Your task to perform on an android device: Set the phone to "Do not disturb". Image 0: 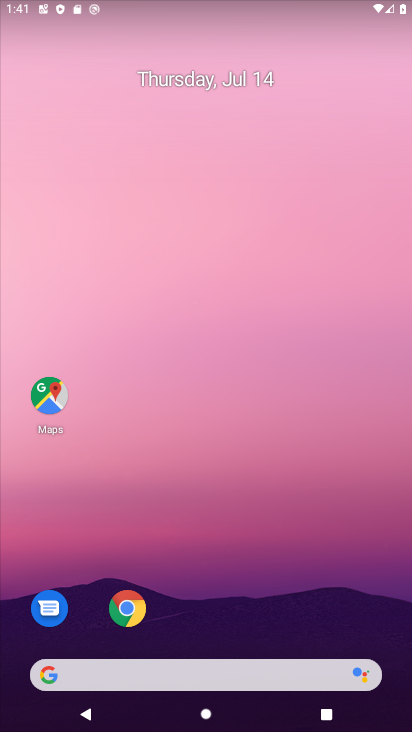
Step 0: drag from (378, 614) to (332, 55)
Your task to perform on an android device: Set the phone to "Do not disturb". Image 1: 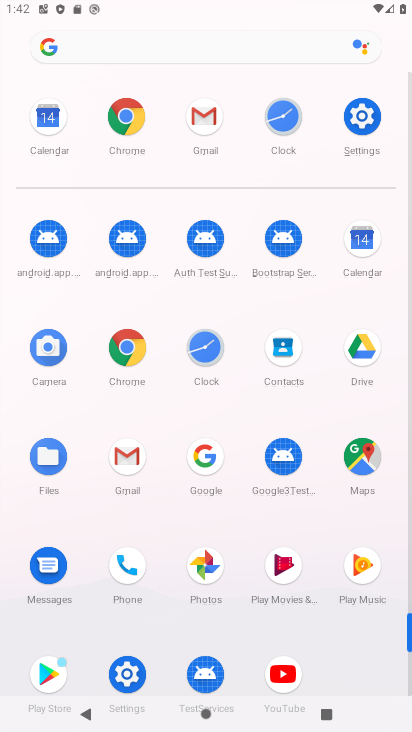
Step 1: click (128, 675)
Your task to perform on an android device: Set the phone to "Do not disturb". Image 2: 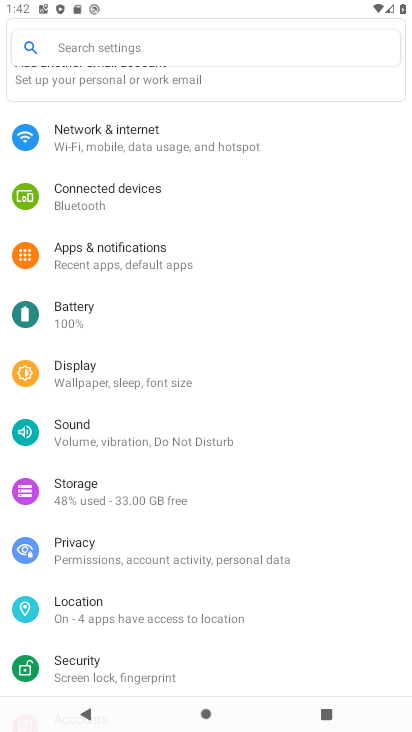
Step 2: click (76, 429)
Your task to perform on an android device: Set the phone to "Do not disturb". Image 3: 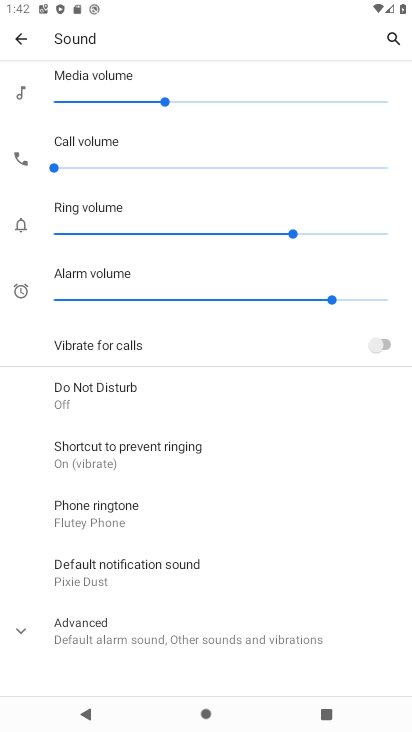
Step 3: click (75, 392)
Your task to perform on an android device: Set the phone to "Do not disturb". Image 4: 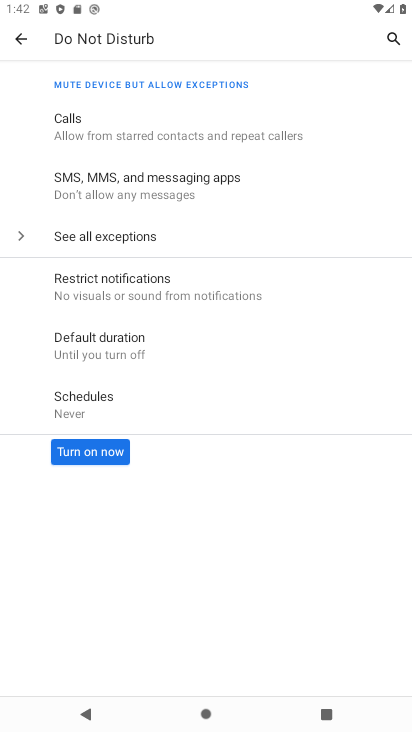
Step 4: click (87, 453)
Your task to perform on an android device: Set the phone to "Do not disturb". Image 5: 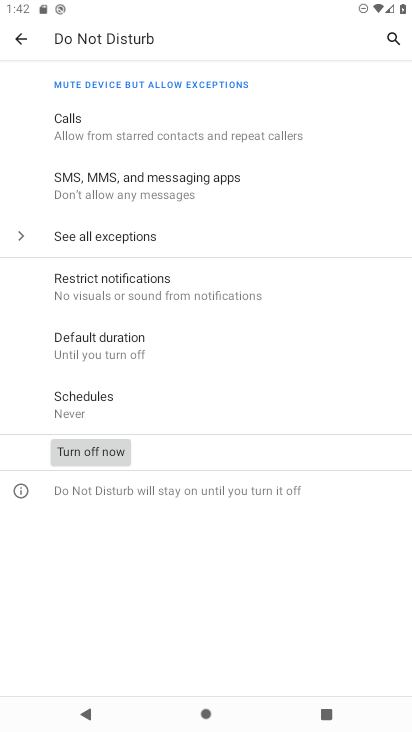
Step 5: task complete